Your task to perform on an android device: Open Wikipedia Image 0: 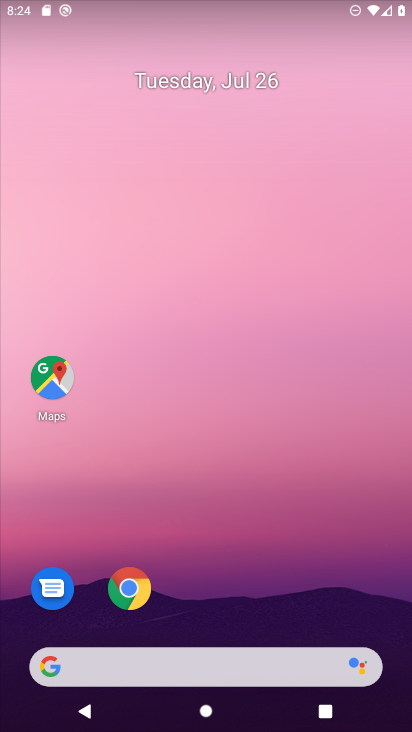
Step 0: click (136, 593)
Your task to perform on an android device: Open Wikipedia Image 1: 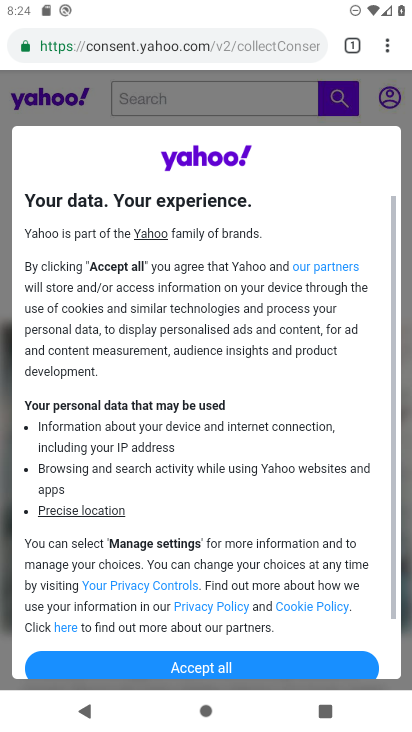
Step 1: click (184, 51)
Your task to perform on an android device: Open Wikipedia Image 2: 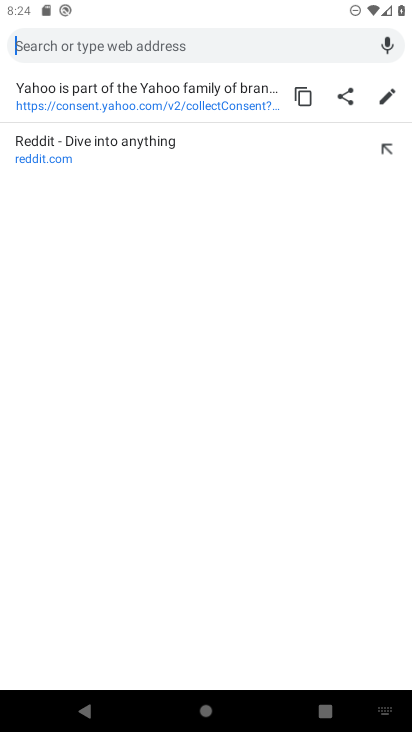
Step 2: type "wikipedia"
Your task to perform on an android device: Open Wikipedia Image 3: 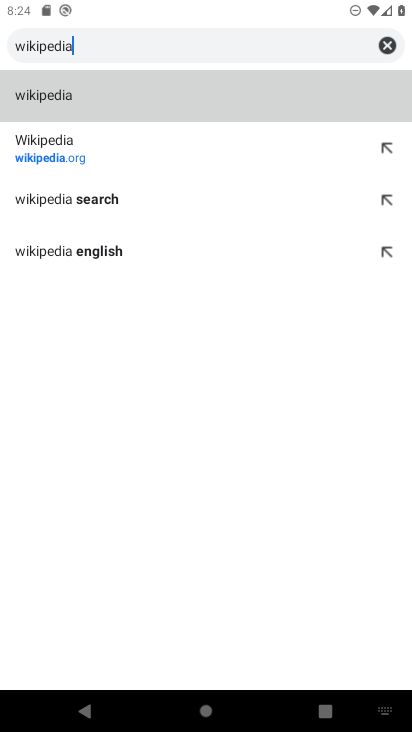
Step 3: click (45, 142)
Your task to perform on an android device: Open Wikipedia Image 4: 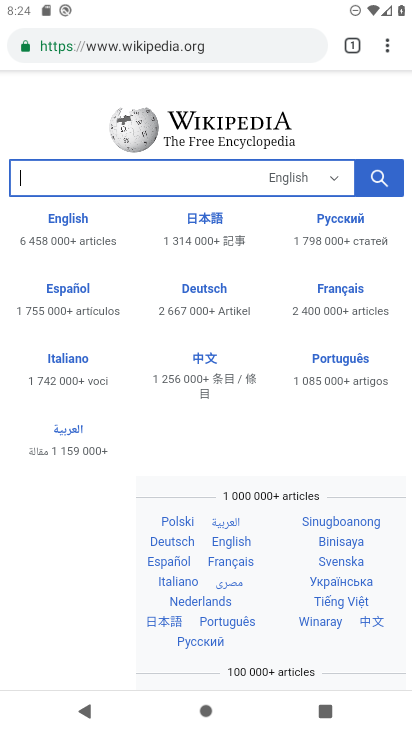
Step 4: task complete